Your task to perform on an android device: turn on the 24-hour format for clock Image 0: 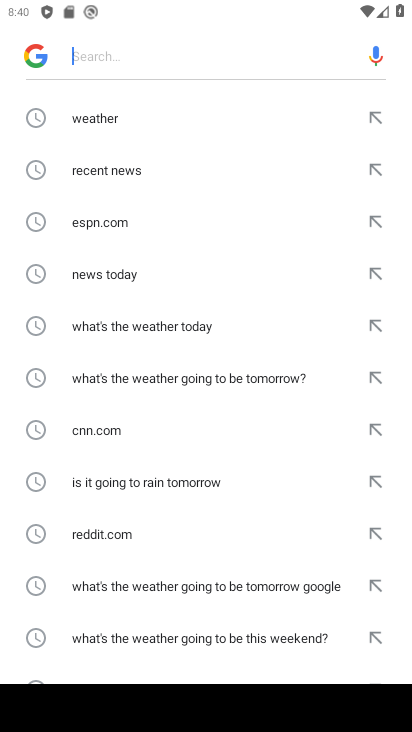
Step 0: press home button
Your task to perform on an android device: turn on the 24-hour format for clock Image 1: 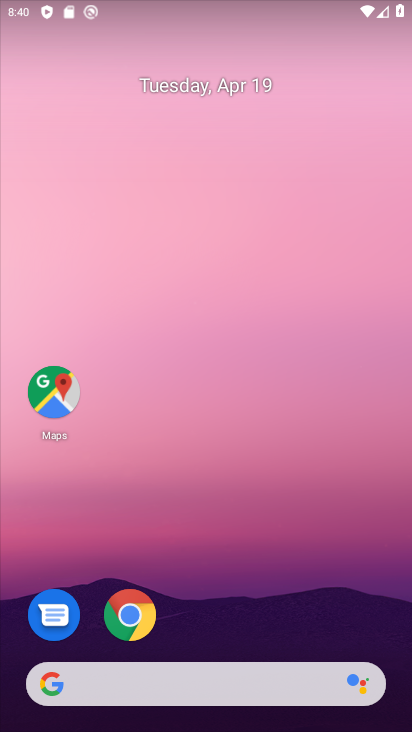
Step 1: drag from (227, 425) to (263, 170)
Your task to perform on an android device: turn on the 24-hour format for clock Image 2: 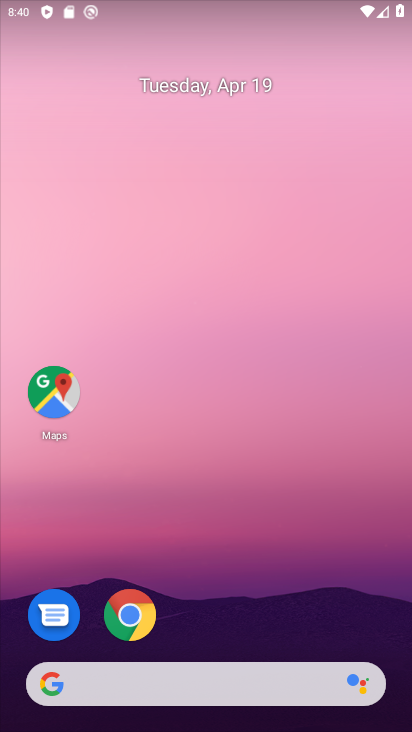
Step 2: drag from (278, 439) to (323, 139)
Your task to perform on an android device: turn on the 24-hour format for clock Image 3: 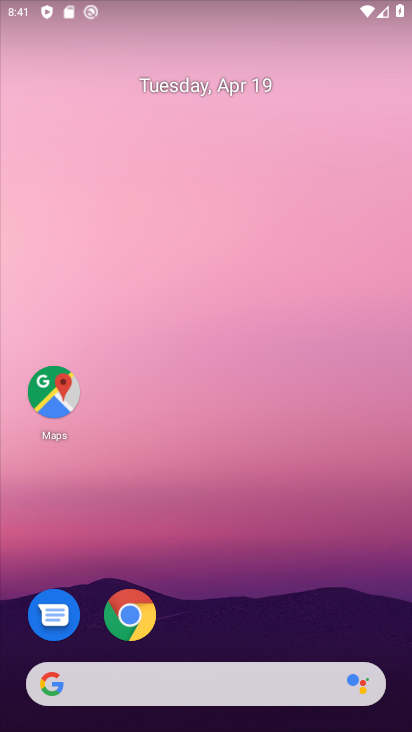
Step 3: drag from (215, 650) to (250, 232)
Your task to perform on an android device: turn on the 24-hour format for clock Image 4: 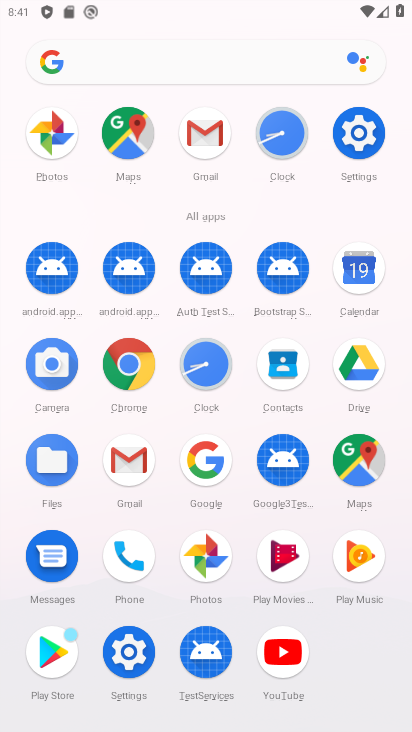
Step 4: click (287, 145)
Your task to perform on an android device: turn on the 24-hour format for clock Image 5: 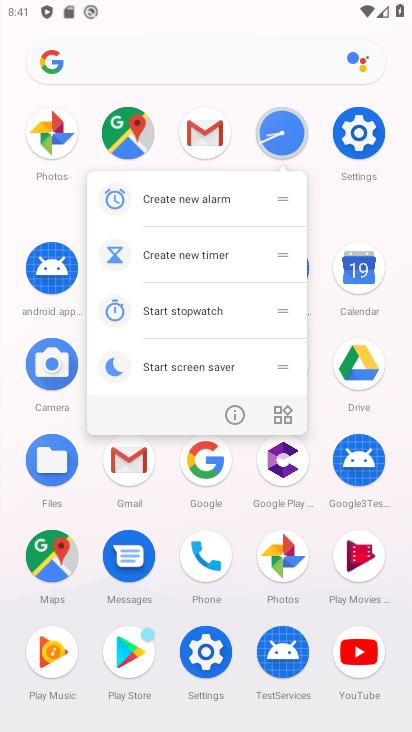
Step 5: click (287, 145)
Your task to perform on an android device: turn on the 24-hour format for clock Image 6: 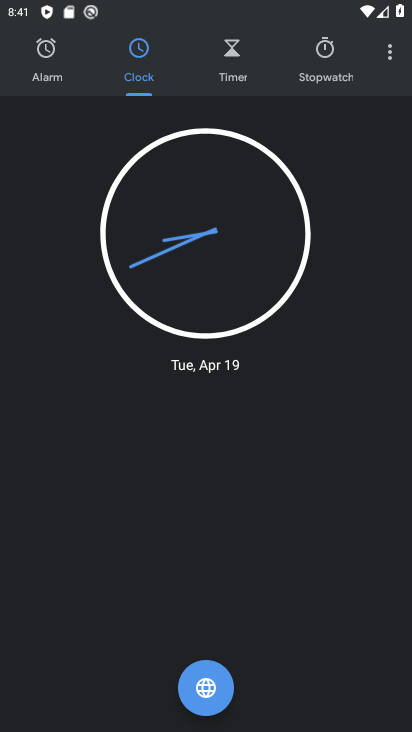
Step 6: click (392, 51)
Your task to perform on an android device: turn on the 24-hour format for clock Image 7: 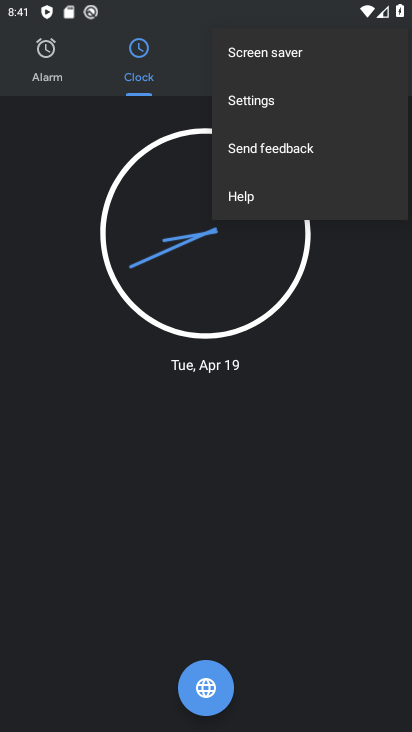
Step 7: click (265, 101)
Your task to perform on an android device: turn on the 24-hour format for clock Image 8: 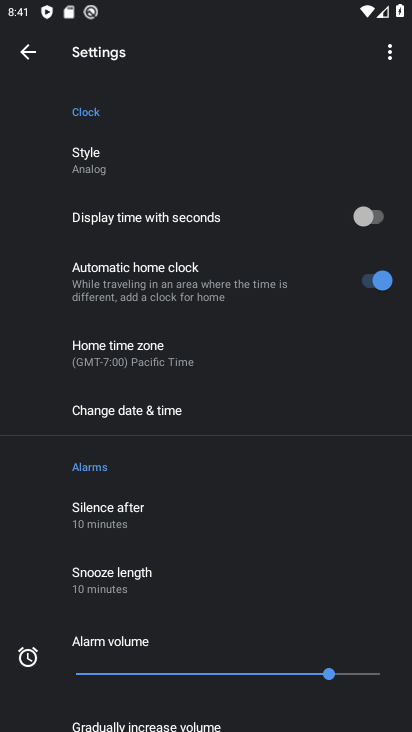
Step 8: click (134, 416)
Your task to perform on an android device: turn on the 24-hour format for clock Image 9: 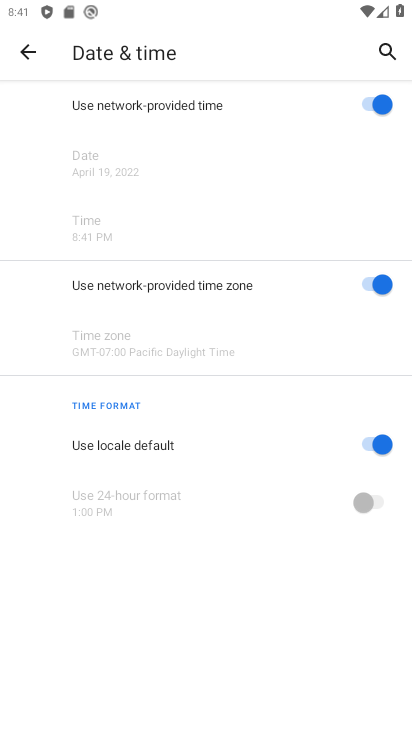
Step 9: click (368, 444)
Your task to perform on an android device: turn on the 24-hour format for clock Image 10: 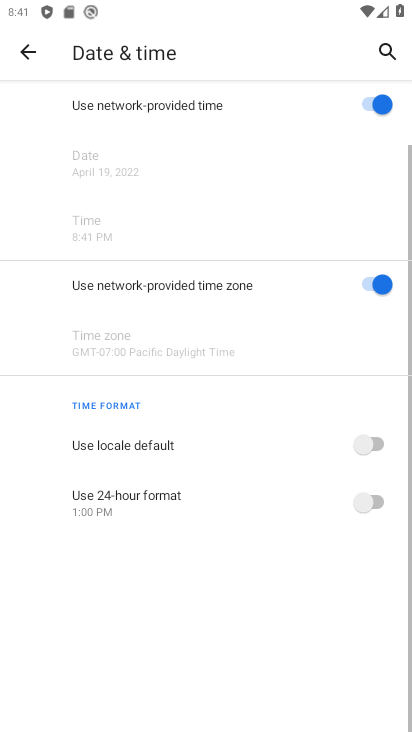
Step 10: click (380, 501)
Your task to perform on an android device: turn on the 24-hour format for clock Image 11: 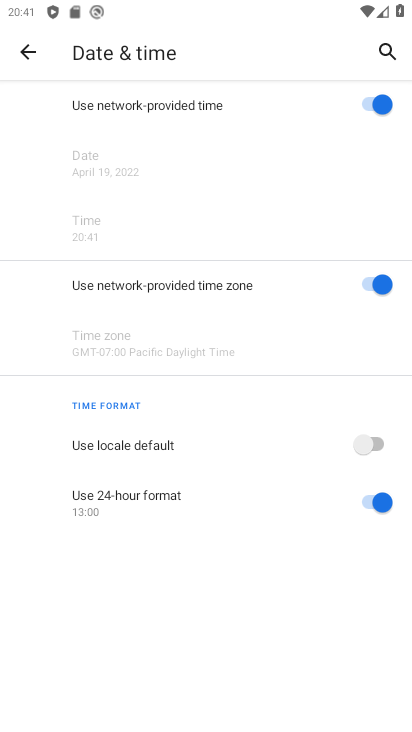
Step 11: task complete